Your task to perform on an android device: show emergency info Image 0: 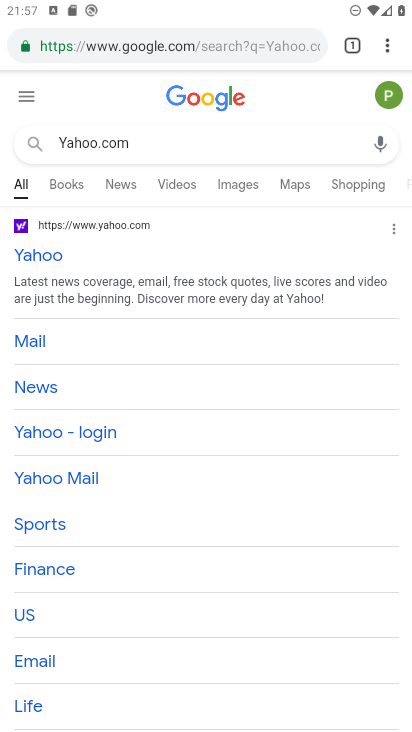
Step 0: press home button
Your task to perform on an android device: show emergency info Image 1: 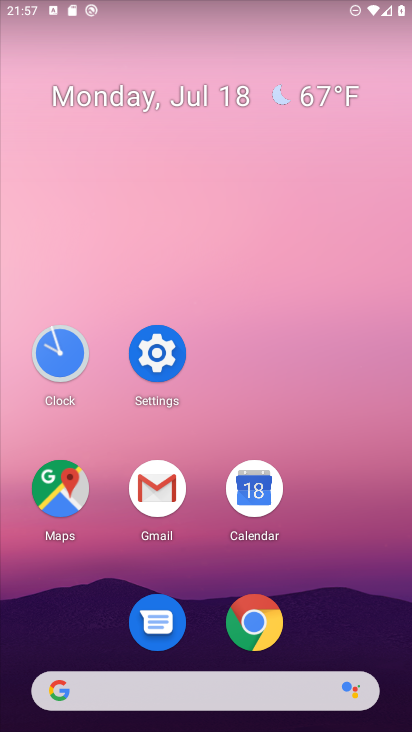
Step 1: click (151, 334)
Your task to perform on an android device: show emergency info Image 2: 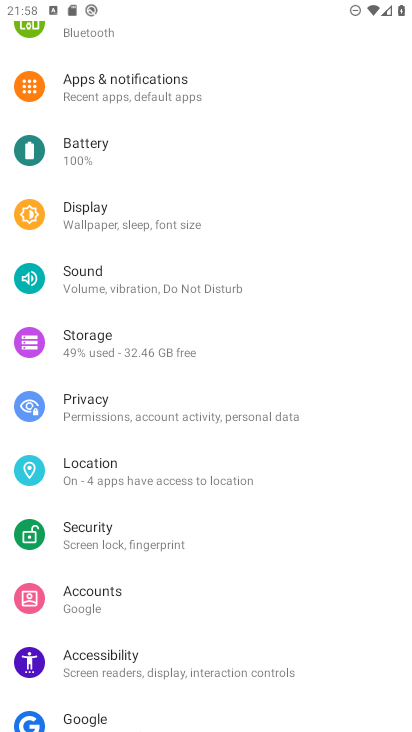
Step 2: drag from (242, 700) to (256, 187)
Your task to perform on an android device: show emergency info Image 3: 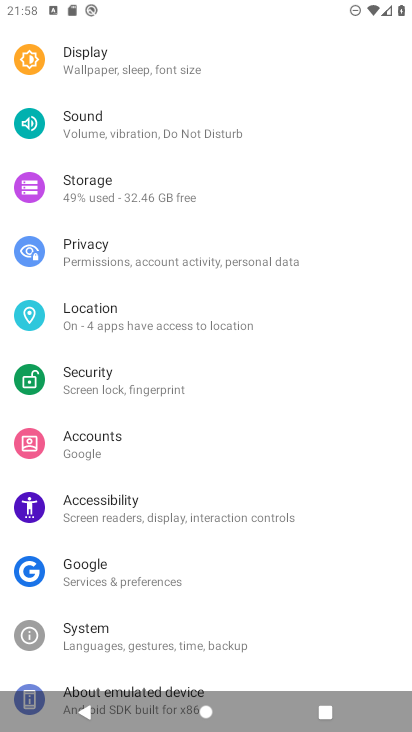
Step 3: click (49, 693)
Your task to perform on an android device: show emergency info Image 4: 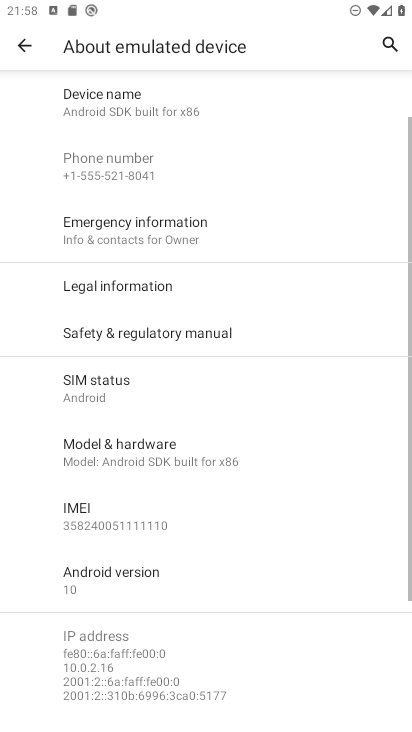
Step 4: click (135, 238)
Your task to perform on an android device: show emergency info Image 5: 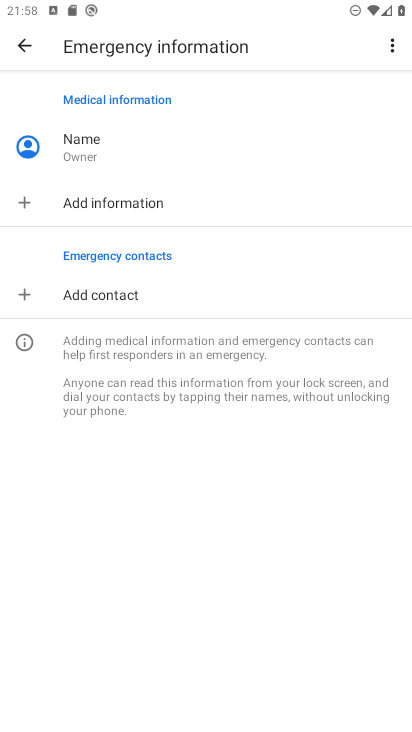
Step 5: task complete